Your task to perform on an android device: turn off smart reply in the gmail app Image 0: 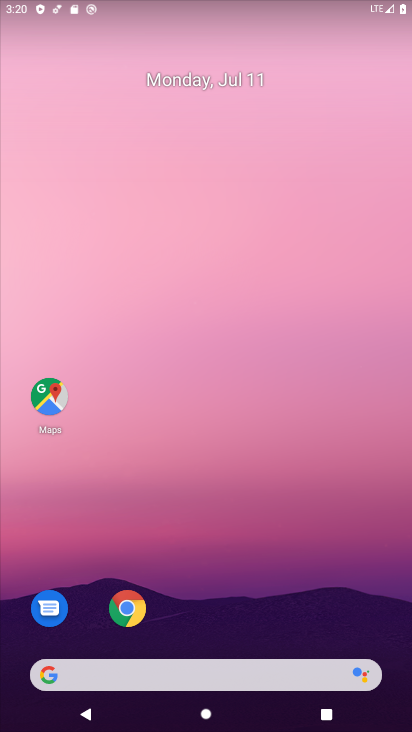
Step 0: drag from (241, 641) to (214, 84)
Your task to perform on an android device: turn off smart reply in the gmail app Image 1: 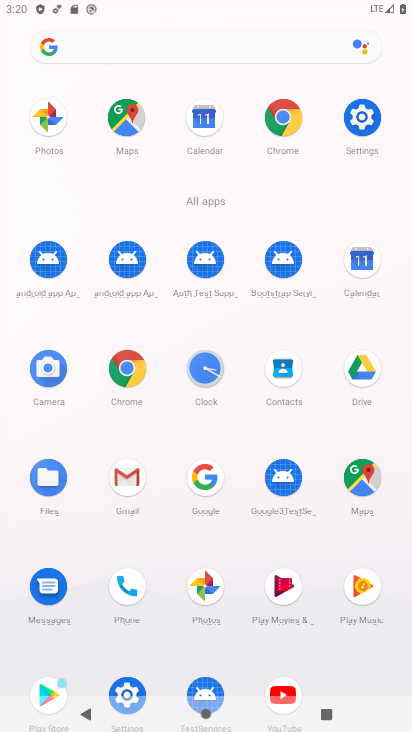
Step 1: click (127, 478)
Your task to perform on an android device: turn off smart reply in the gmail app Image 2: 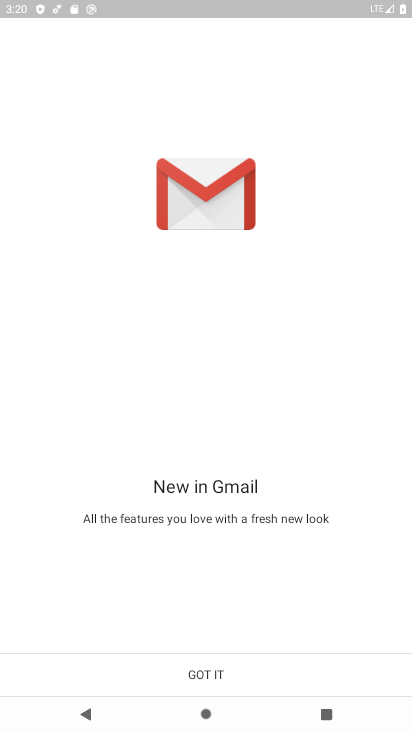
Step 2: click (200, 673)
Your task to perform on an android device: turn off smart reply in the gmail app Image 3: 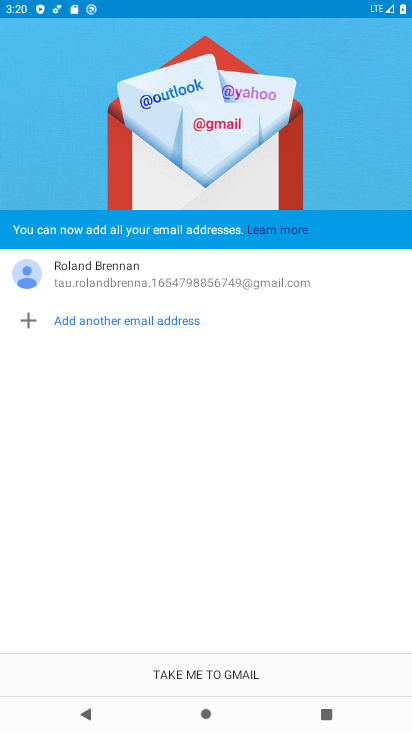
Step 3: click (200, 673)
Your task to perform on an android device: turn off smart reply in the gmail app Image 4: 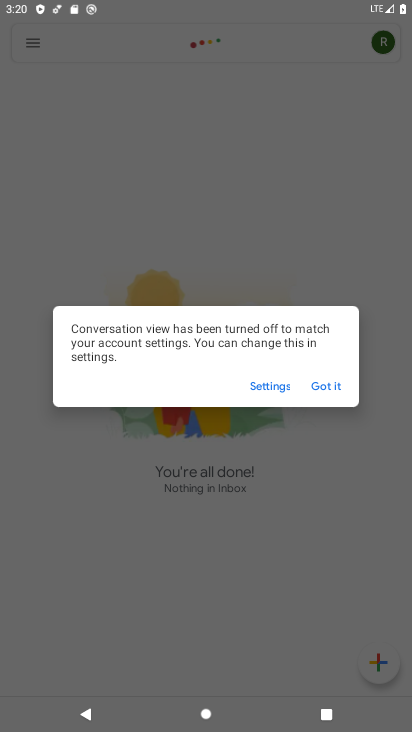
Step 4: click (329, 386)
Your task to perform on an android device: turn off smart reply in the gmail app Image 5: 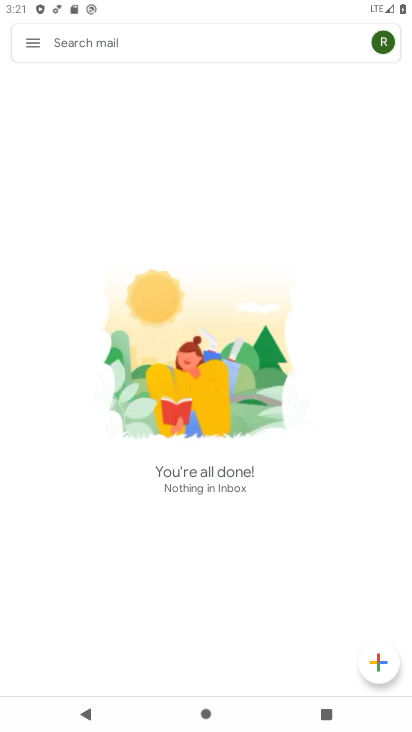
Step 5: click (31, 42)
Your task to perform on an android device: turn off smart reply in the gmail app Image 6: 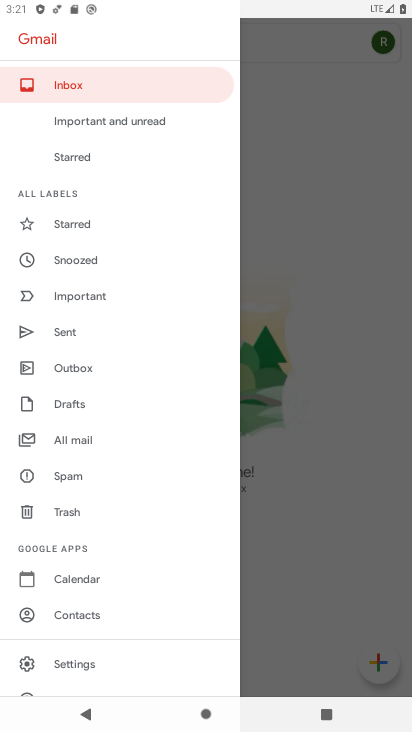
Step 6: drag from (85, 467) to (133, 372)
Your task to perform on an android device: turn off smart reply in the gmail app Image 7: 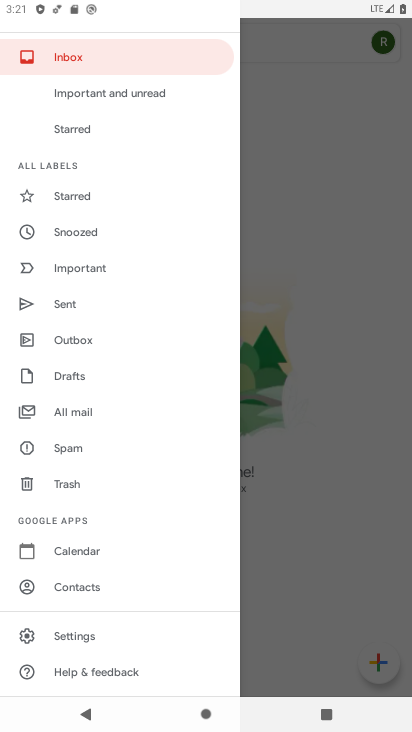
Step 7: click (76, 639)
Your task to perform on an android device: turn off smart reply in the gmail app Image 8: 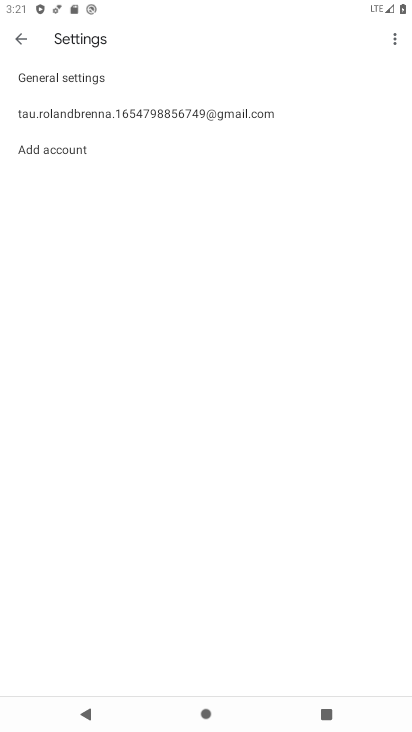
Step 8: click (105, 113)
Your task to perform on an android device: turn off smart reply in the gmail app Image 9: 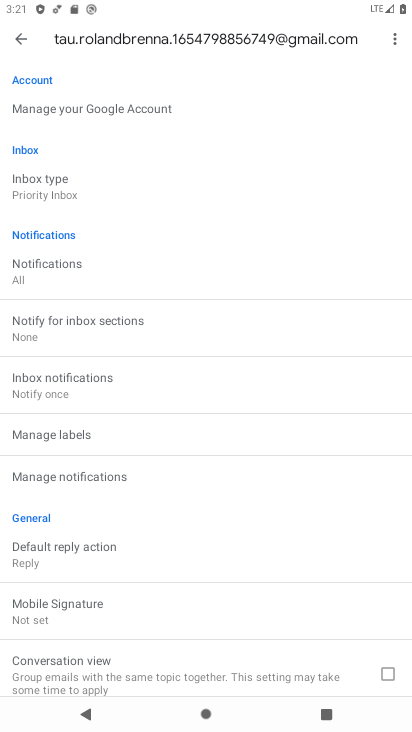
Step 9: drag from (122, 428) to (144, 336)
Your task to perform on an android device: turn off smart reply in the gmail app Image 10: 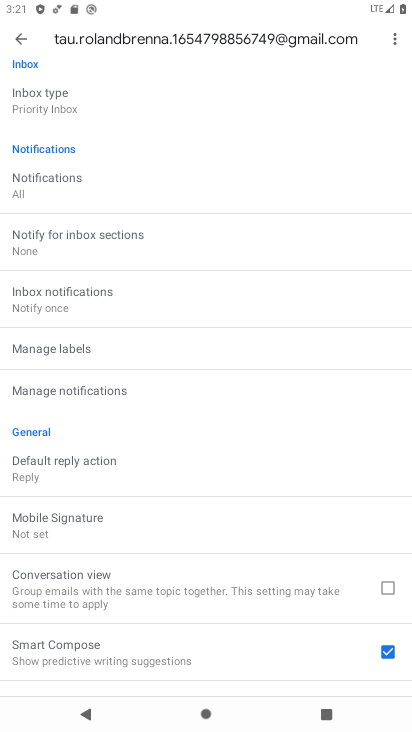
Step 10: drag from (111, 489) to (151, 393)
Your task to perform on an android device: turn off smart reply in the gmail app Image 11: 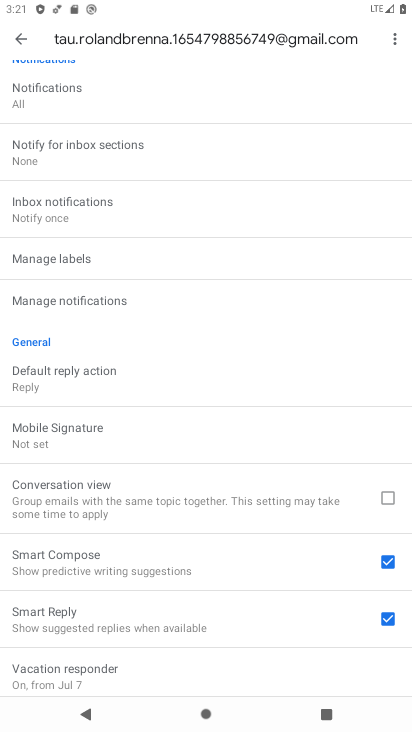
Step 11: drag from (116, 547) to (173, 442)
Your task to perform on an android device: turn off smart reply in the gmail app Image 12: 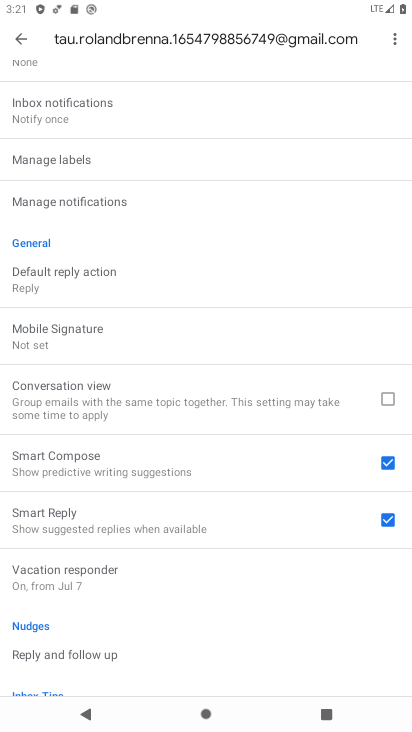
Step 12: drag from (121, 574) to (175, 454)
Your task to perform on an android device: turn off smart reply in the gmail app Image 13: 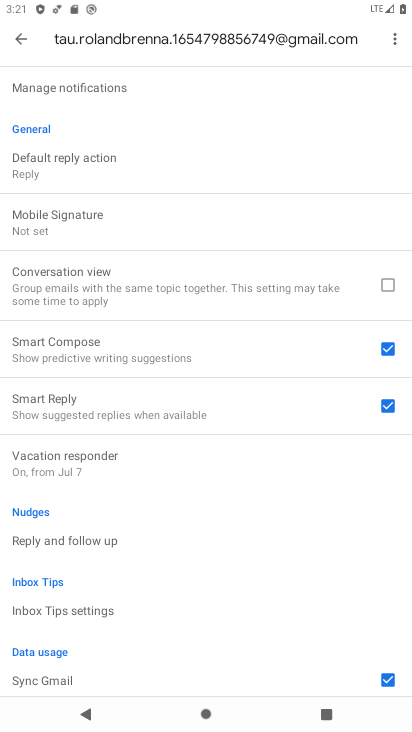
Step 13: click (382, 402)
Your task to perform on an android device: turn off smart reply in the gmail app Image 14: 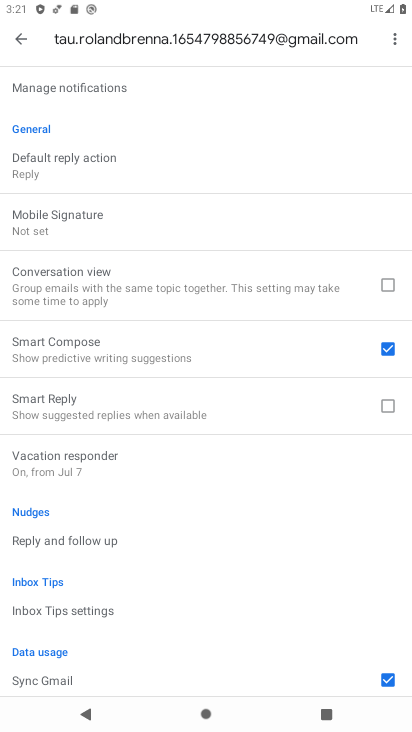
Step 14: task complete